Your task to perform on an android device: What's the weather today? Image 0: 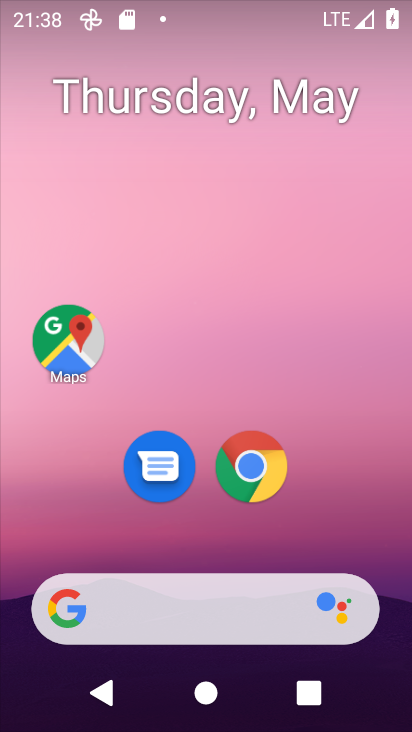
Step 0: drag from (373, 495) to (367, 209)
Your task to perform on an android device: What's the weather today? Image 1: 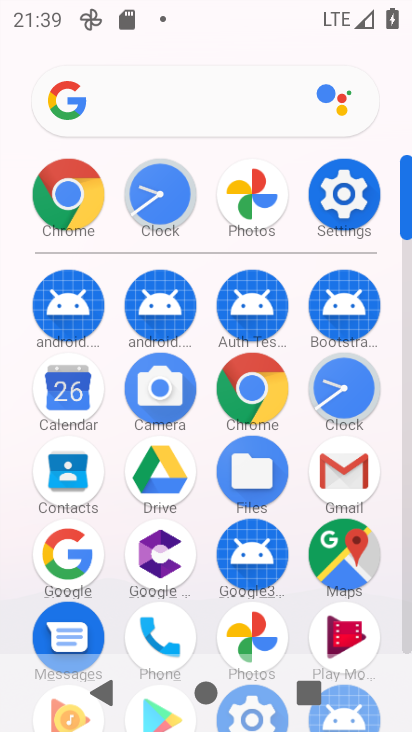
Step 1: click (201, 93)
Your task to perform on an android device: What's the weather today? Image 2: 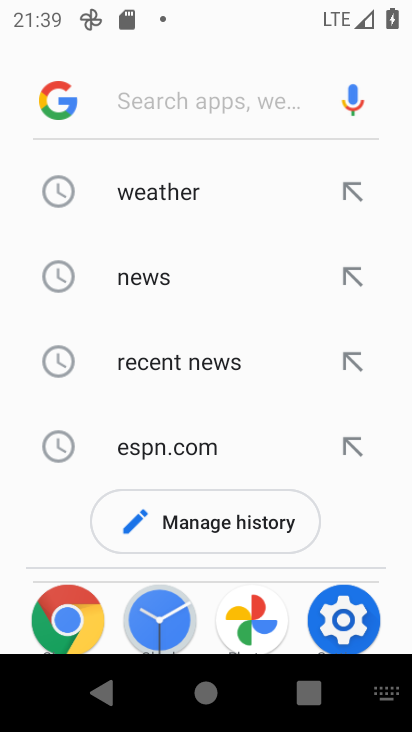
Step 2: click (177, 157)
Your task to perform on an android device: What's the weather today? Image 3: 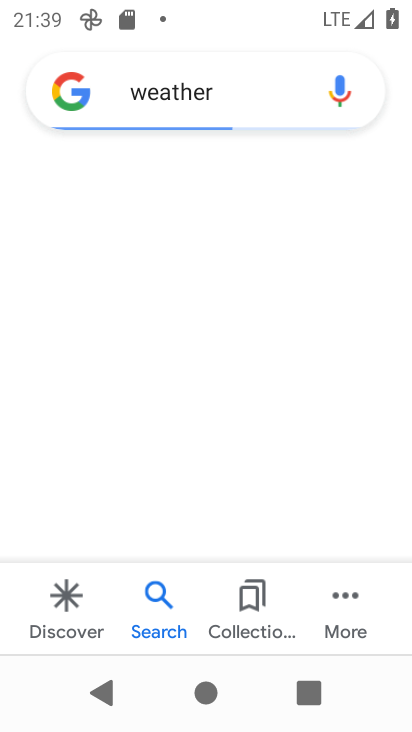
Step 3: task complete